Your task to perform on an android device: Open the phone app and click the voicemail tab. Image 0: 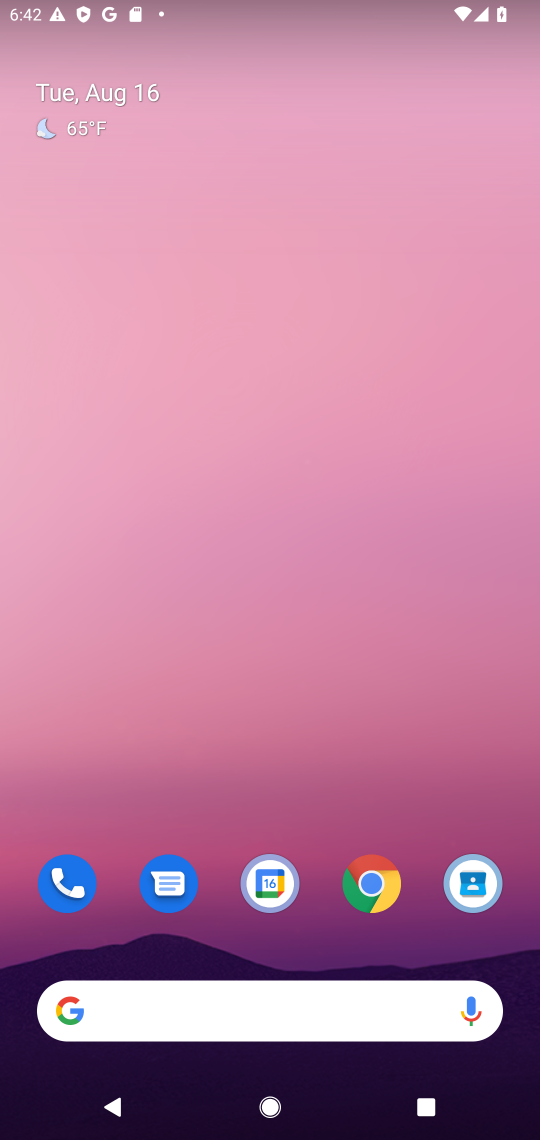
Step 0: click (60, 891)
Your task to perform on an android device: Open the phone app and click the voicemail tab. Image 1: 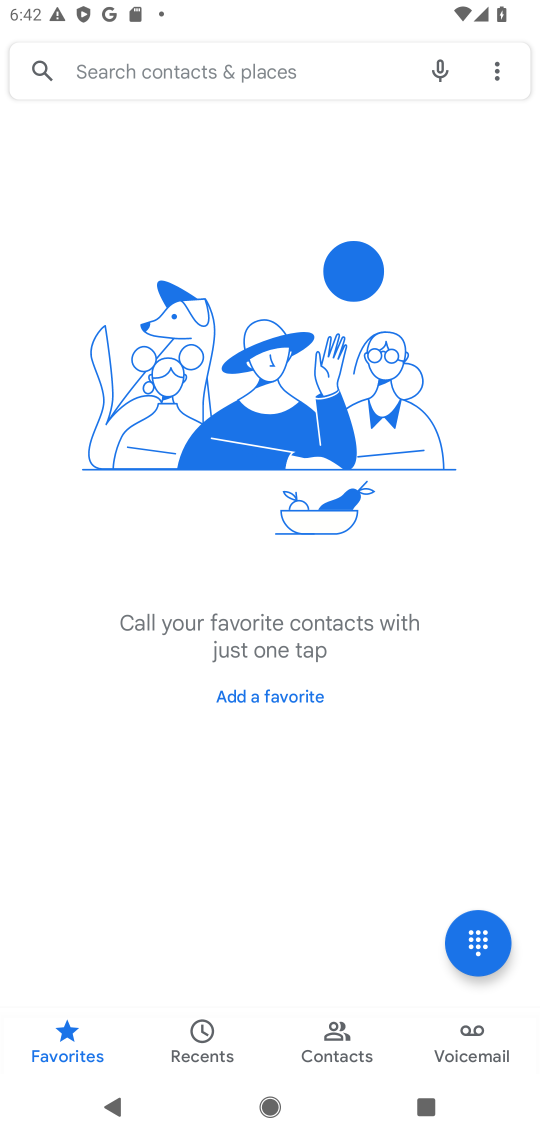
Step 1: click (466, 1031)
Your task to perform on an android device: Open the phone app and click the voicemail tab. Image 2: 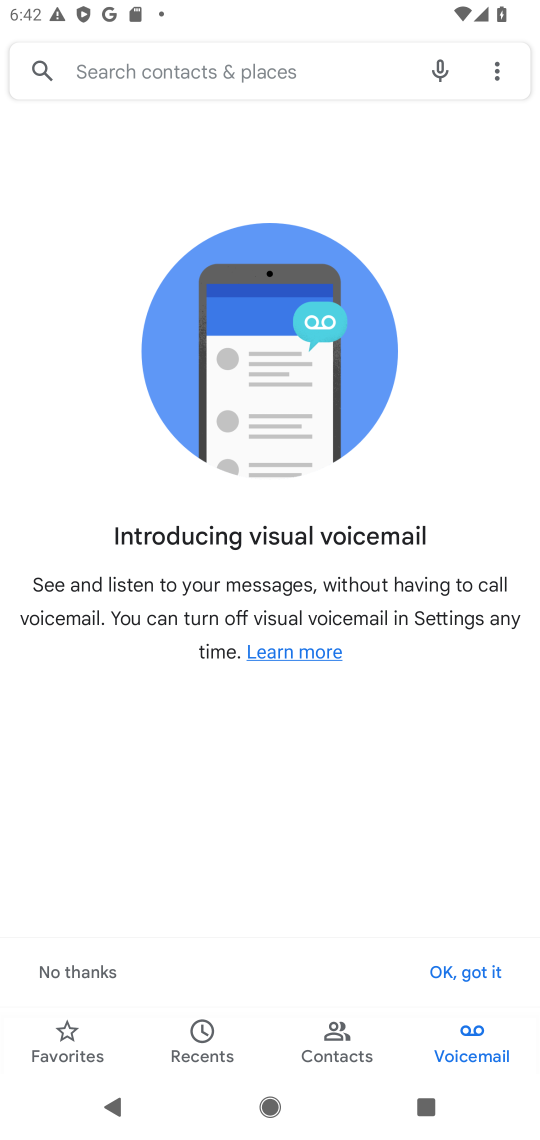
Step 2: task complete